Your task to perform on an android device: Open CNN.com Image 0: 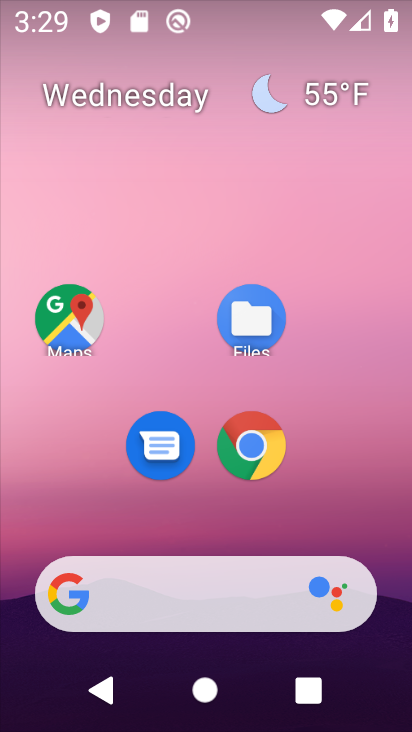
Step 0: click (273, 443)
Your task to perform on an android device: Open CNN.com Image 1: 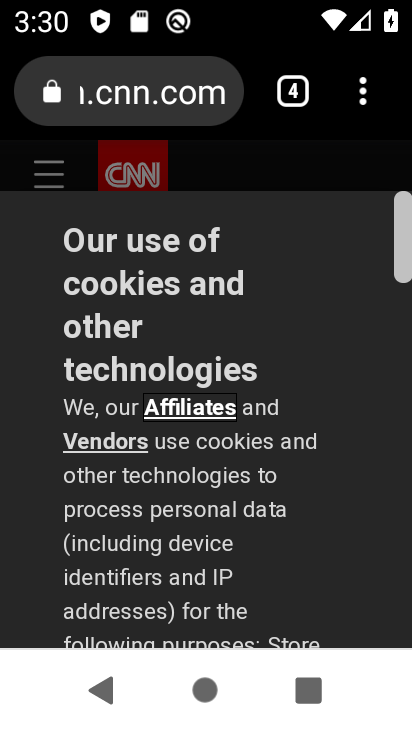
Step 1: task complete